Your task to perform on an android device: open the mobile data screen to see how much data has been used Image 0: 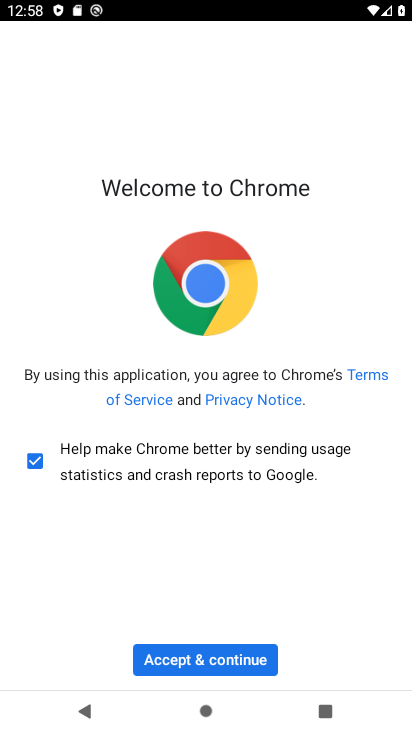
Step 0: click (217, 661)
Your task to perform on an android device: open the mobile data screen to see how much data has been used Image 1: 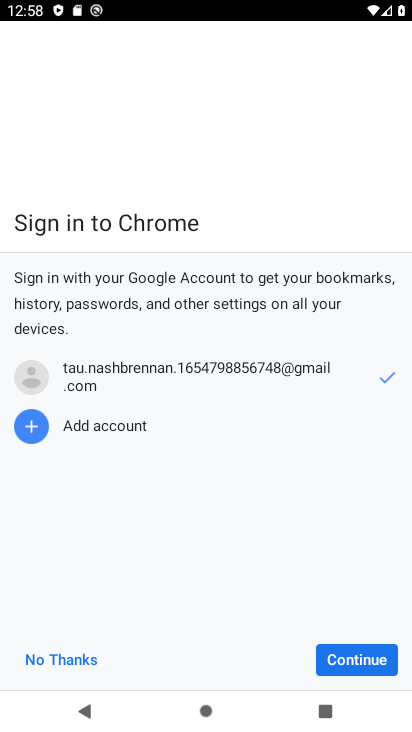
Step 1: click (206, 664)
Your task to perform on an android device: open the mobile data screen to see how much data has been used Image 2: 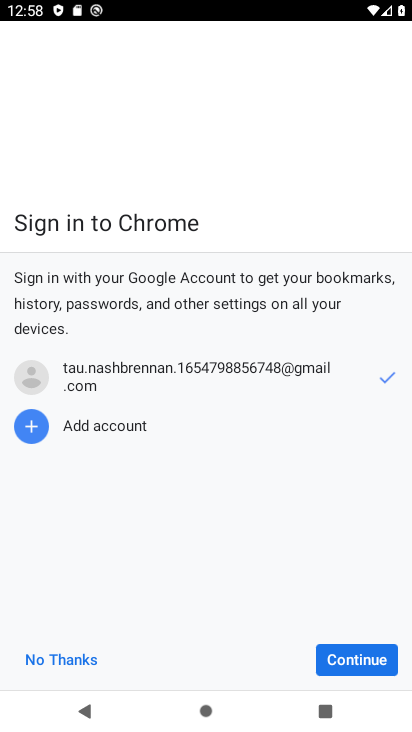
Step 2: press back button
Your task to perform on an android device: open the mobile data screen to see how much data has been used Image 3: 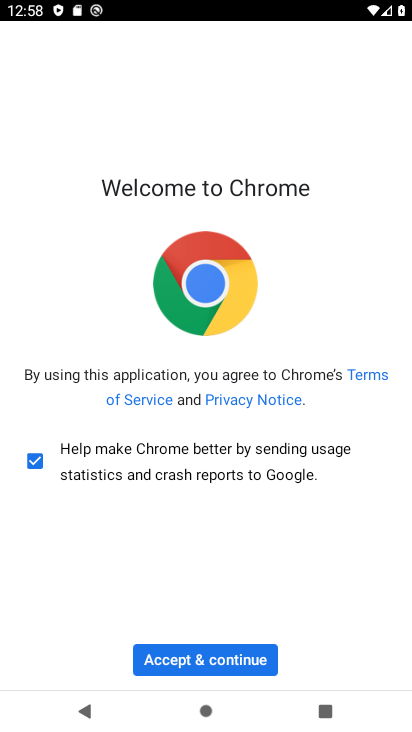
Step 3: click (198, 657)
Your task to perform on an android device: open the mobile data screen to see how much data has been used Image 4: 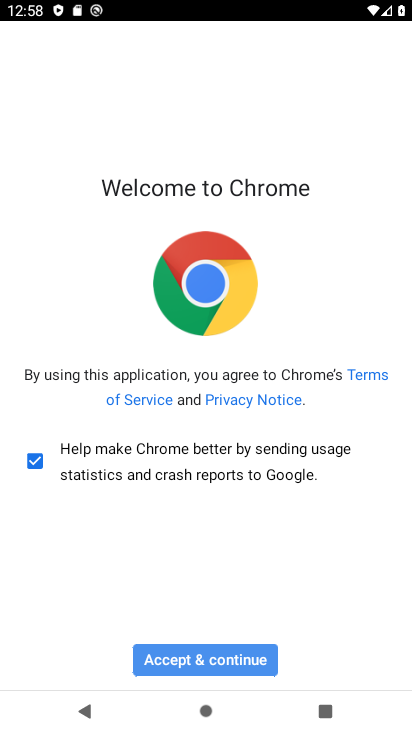
Step 4: click (226, 662)
Your task to perform on an android device: open the mobile data screen to see how much data has been used Image 5: 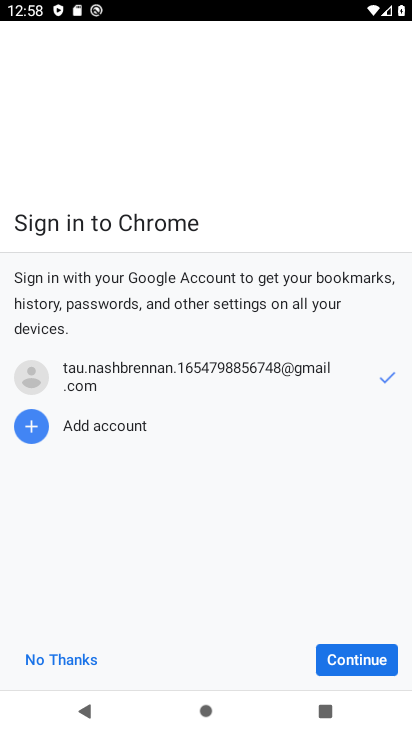
Step 5: click (236, 664)
Your task to perform on an android device: open the mobile data screen to see how much data has been used Image 6: 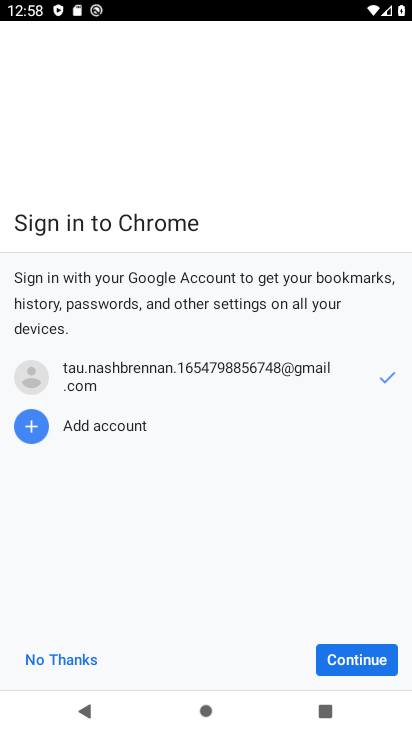
Step 6: click (236, 658)
Your task to perform on an android device: open the mobile data screen to see how much data has been used Image 7: 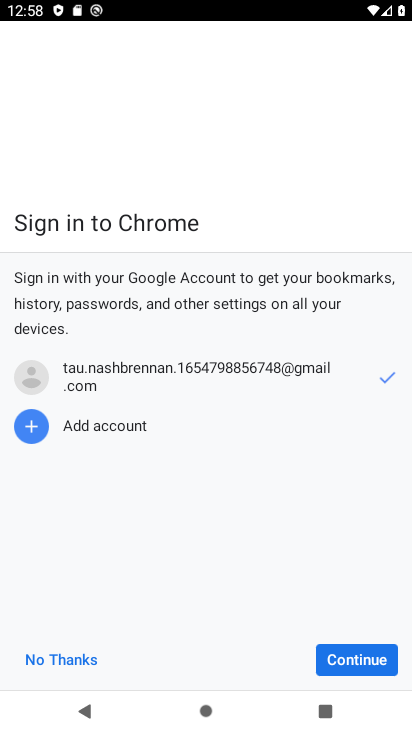
Step 7: click (236, 658)
Your task to perform on an android device: open the mobile data screen to see how much data has been used Image 8: 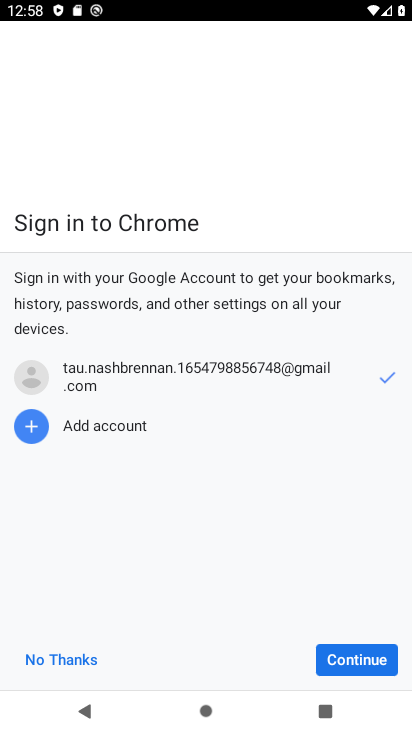
Step 8: click (352, 663)
Your task to perform on an android device: open the mobile data screen to see how much data has been used Image 9: 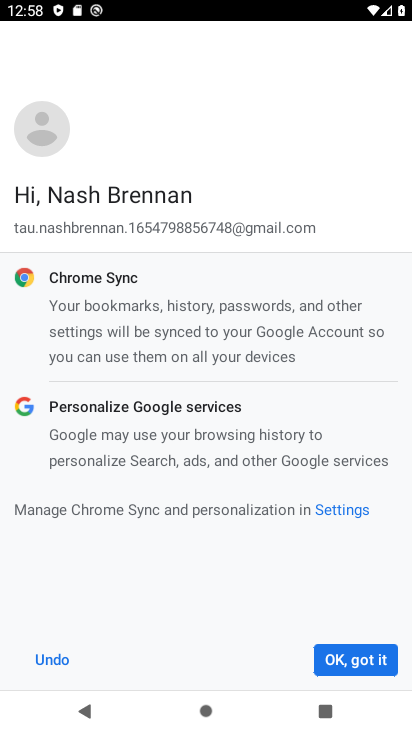
Step 9: click (356, 656)
Your task to perform on an android device: open the mobile data screen to see how much data has been used Image 10: 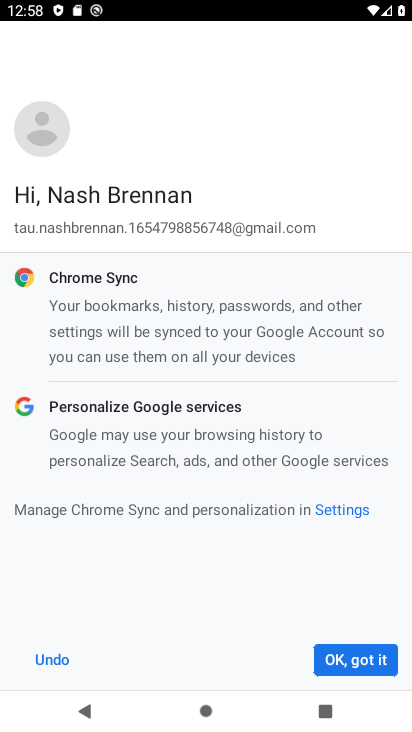
Step 10: click (359, 656)
Your task to perform on an android device: open the mobile data screen to see how much data has been used Image 11: 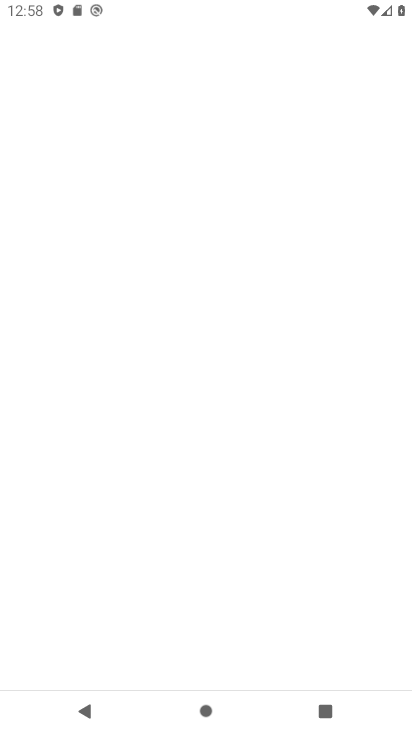
Step 11: click (354, 640)
Your task to perform on an android device: open the mobile data screen to see how much data has been used Image 12: 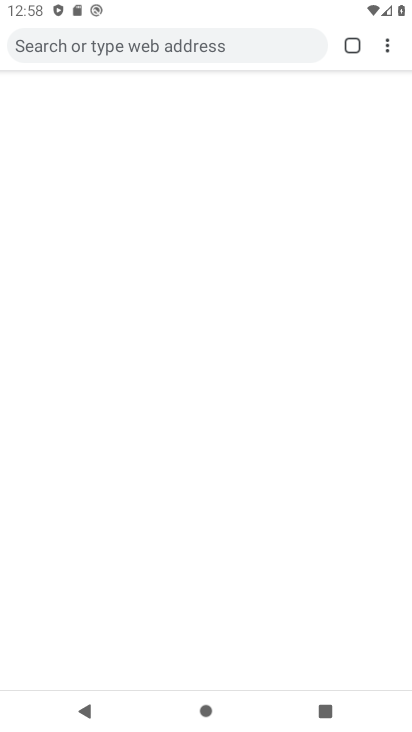
Step 12: click (369, 678)
Your task to perform on an android device: open the mobile data screen to see how much data has been used Image 13: 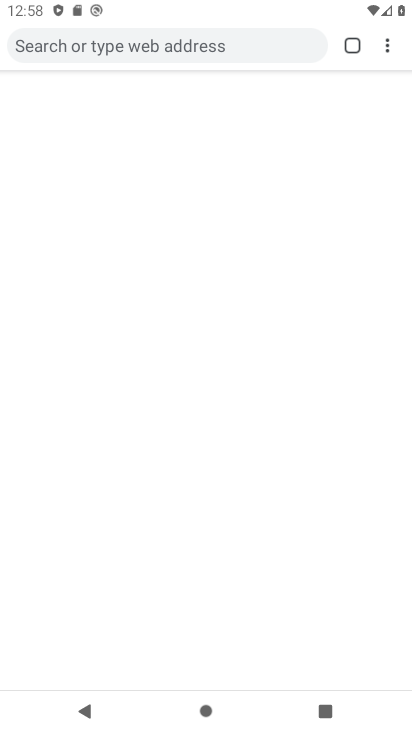
Step 13: click (371, 650)
Your task to perform on an android device: open the mobile data screen to see how much data has been used Image 14: 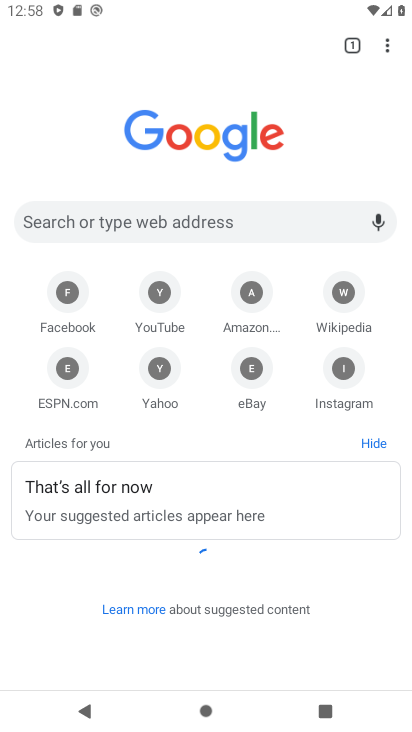
Step 14: click (184, 646)
Your task to perform on an android device: open the mobile data screen to see how much data has been used Image 15: 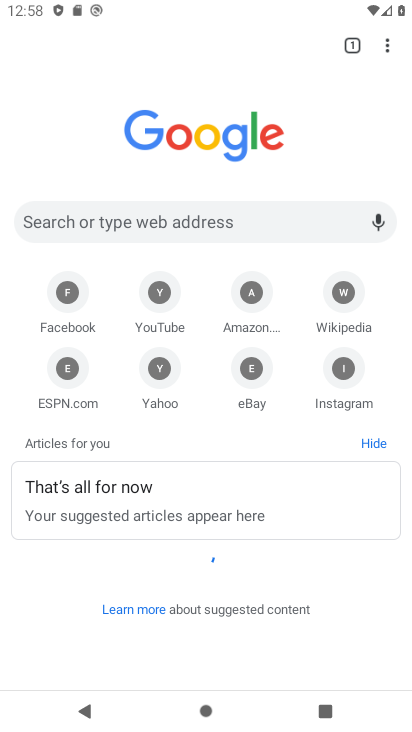
Step 15: click (186, 651)
Your task to perform on an android device: open the mobile data screen to see how much data has been used Image 16: 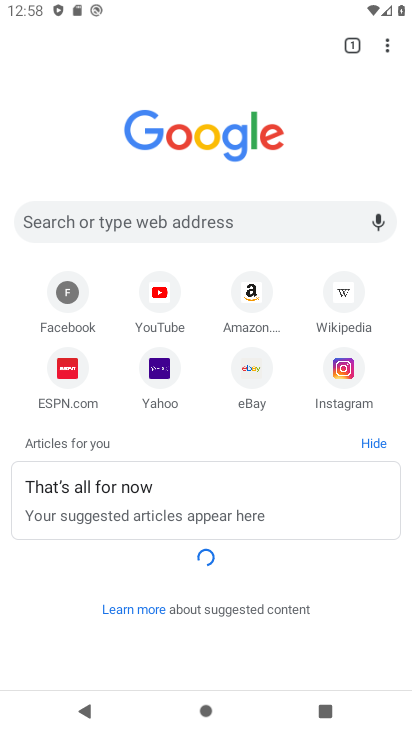
Step 16: click (188, 652)
Your task to perform on an android device: open the mobile data screen to see how much data has been used Image 17: 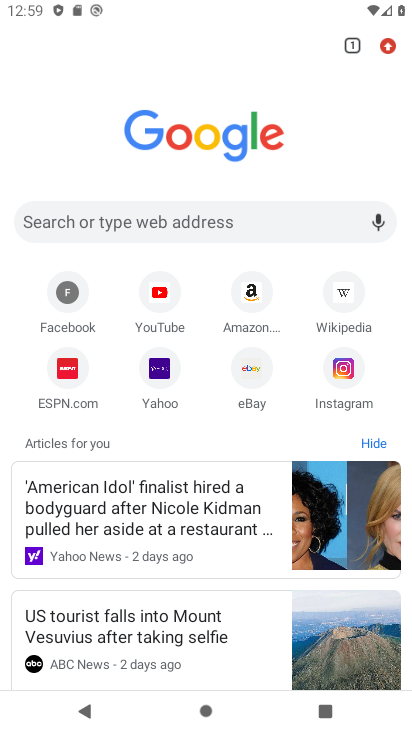
Step 17: click (388, 45)
Your task to perform on an android device: open the mobile data screen to see how much data has been used Image 18: 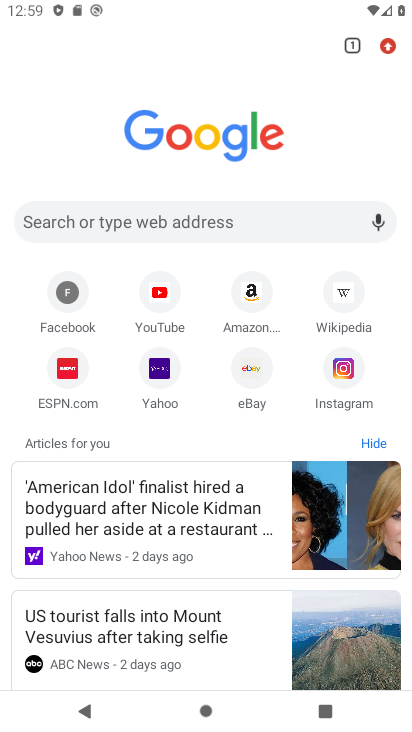
Step 18: task complete